Your task to perform on an android device: Play the last video I watched on Youtube Image 0: 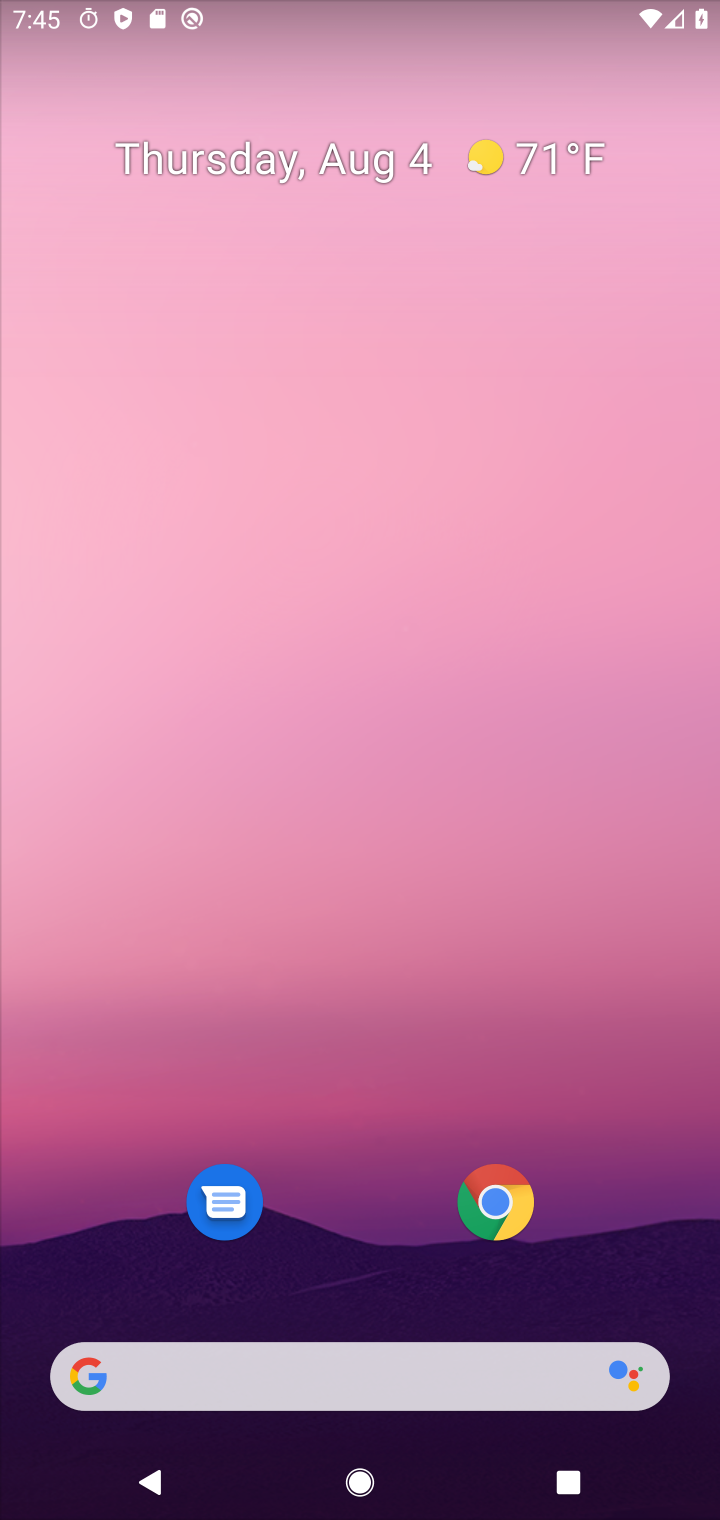
Step 0: drag from (403, 1025) to (578, 197)
Your task to perform on an android device: Play the last video I watched on Youtube Image 1: 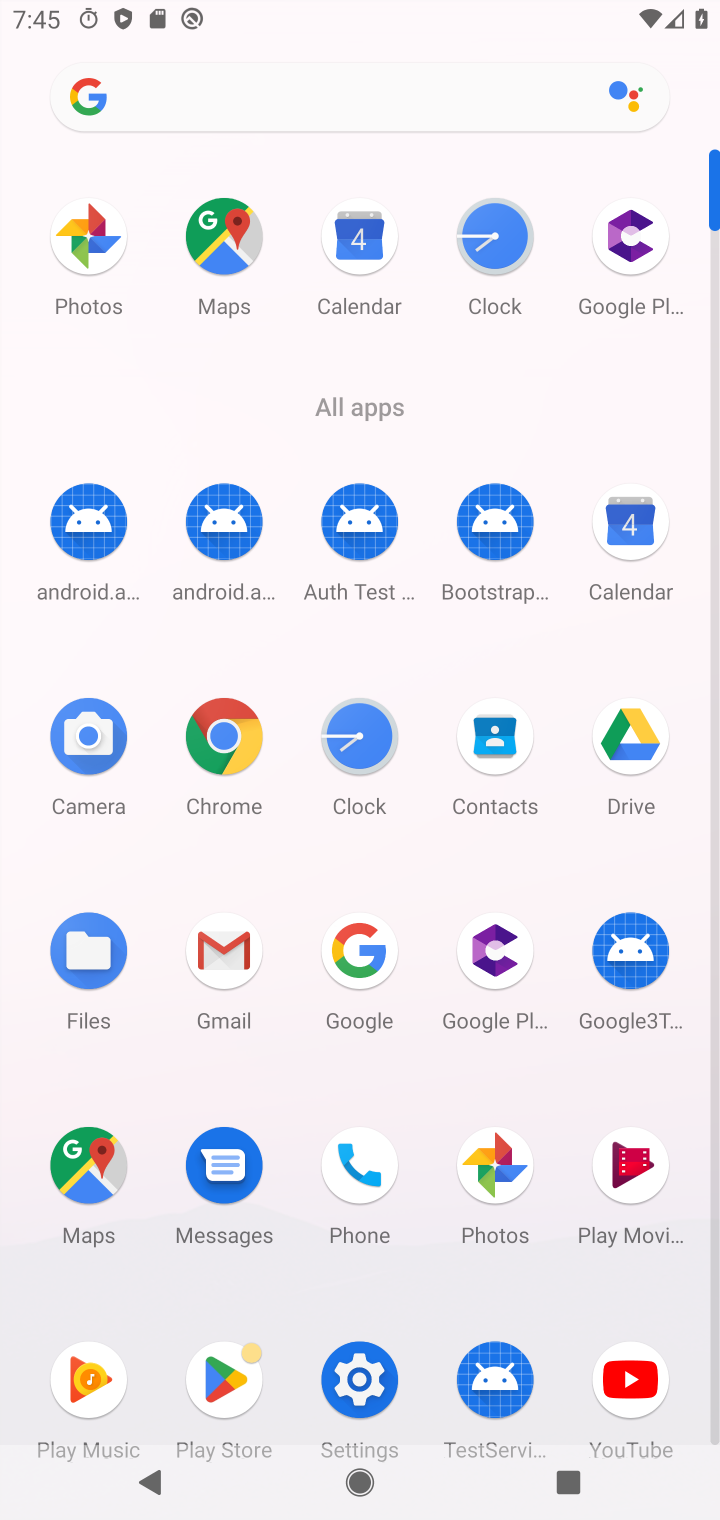
Step 1: click (646, 1402)
Your task to perform on an android device: Play the last video I watched on Youtube Image 2: 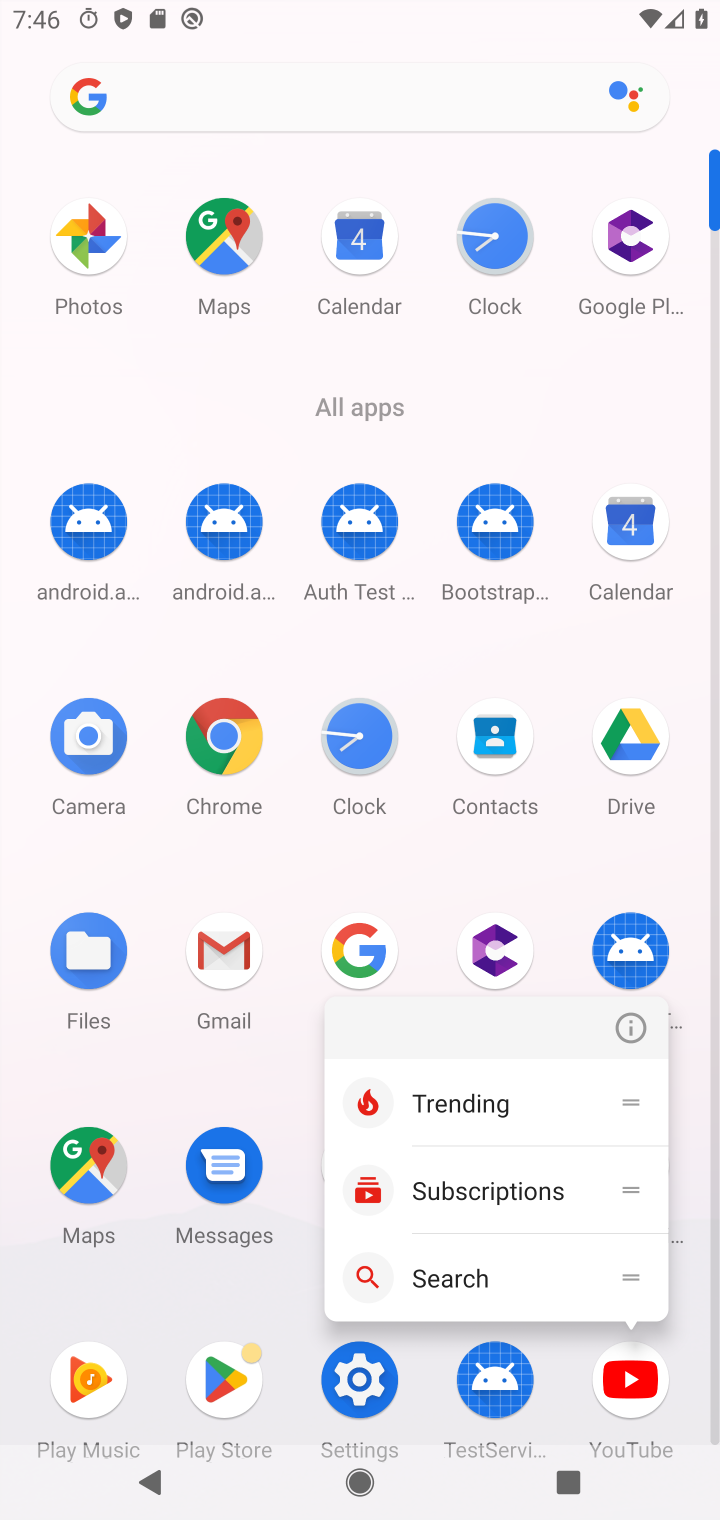
Step 2: click (620, 1017)
Your task to perform on an android device: Play the last video I watched on Youtube Image 3: 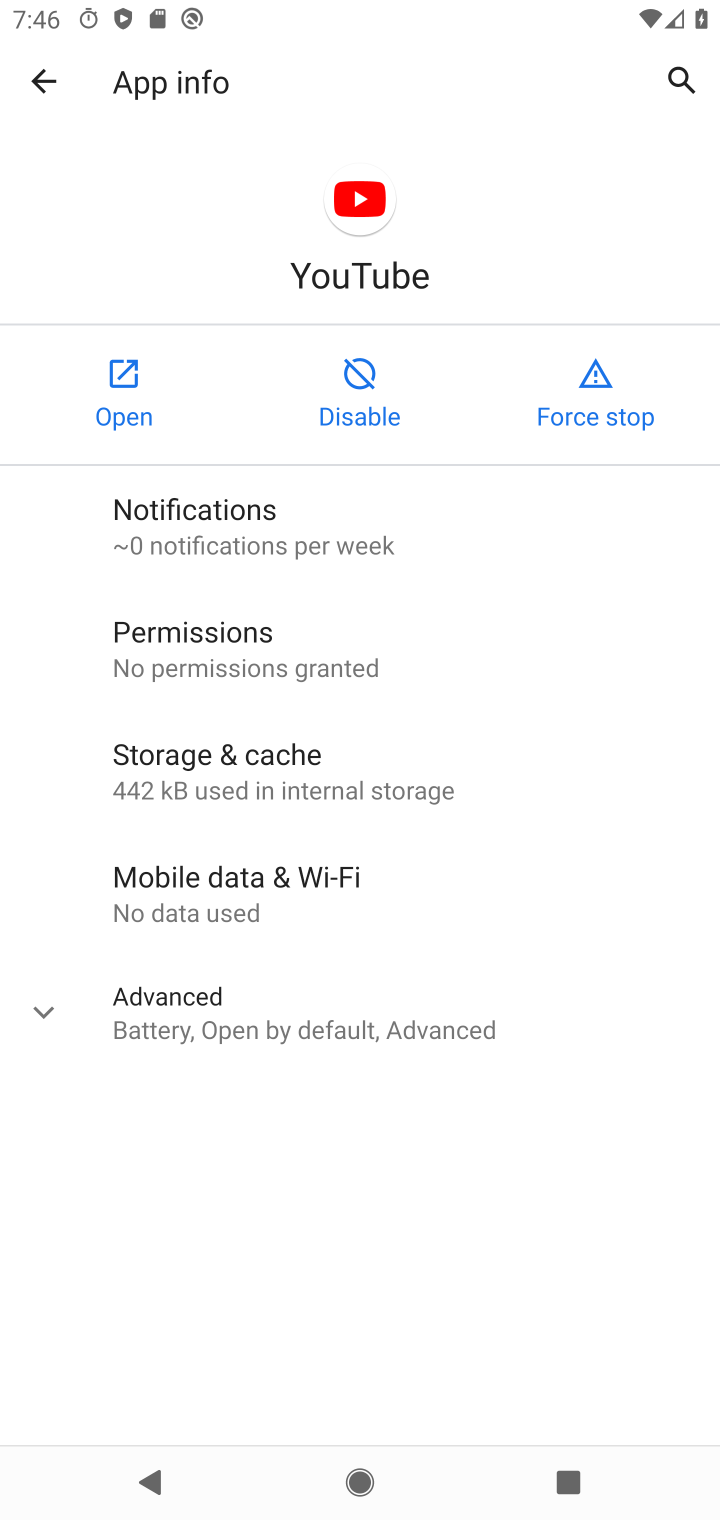
Step 3: click (102, 390)
Your task to perform on an android device: Play the last video I watched on Youtube Image 4: 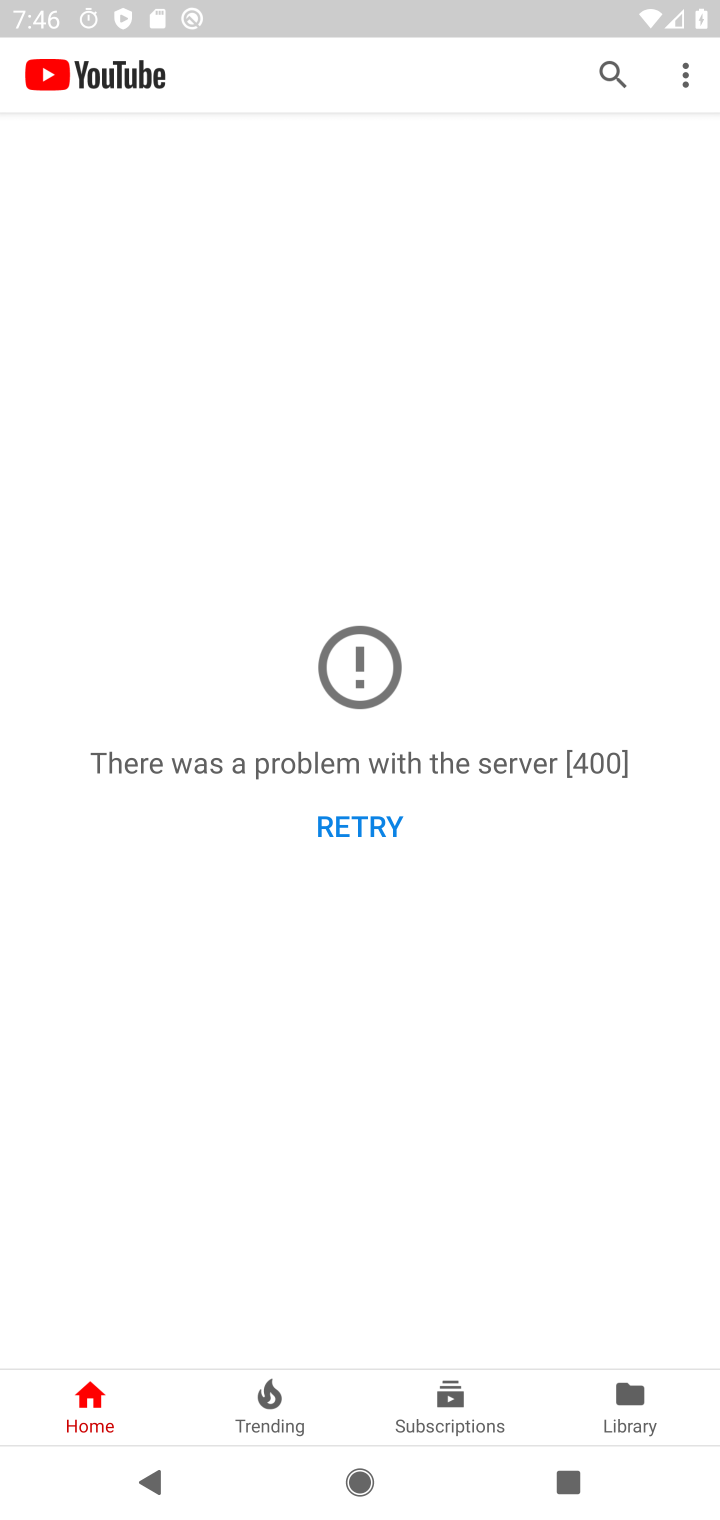
Step 4: drag from (399, 1234) to (314, 780)
Your task to perform on an android device: Play the last video I watched on Youtube Image 5: 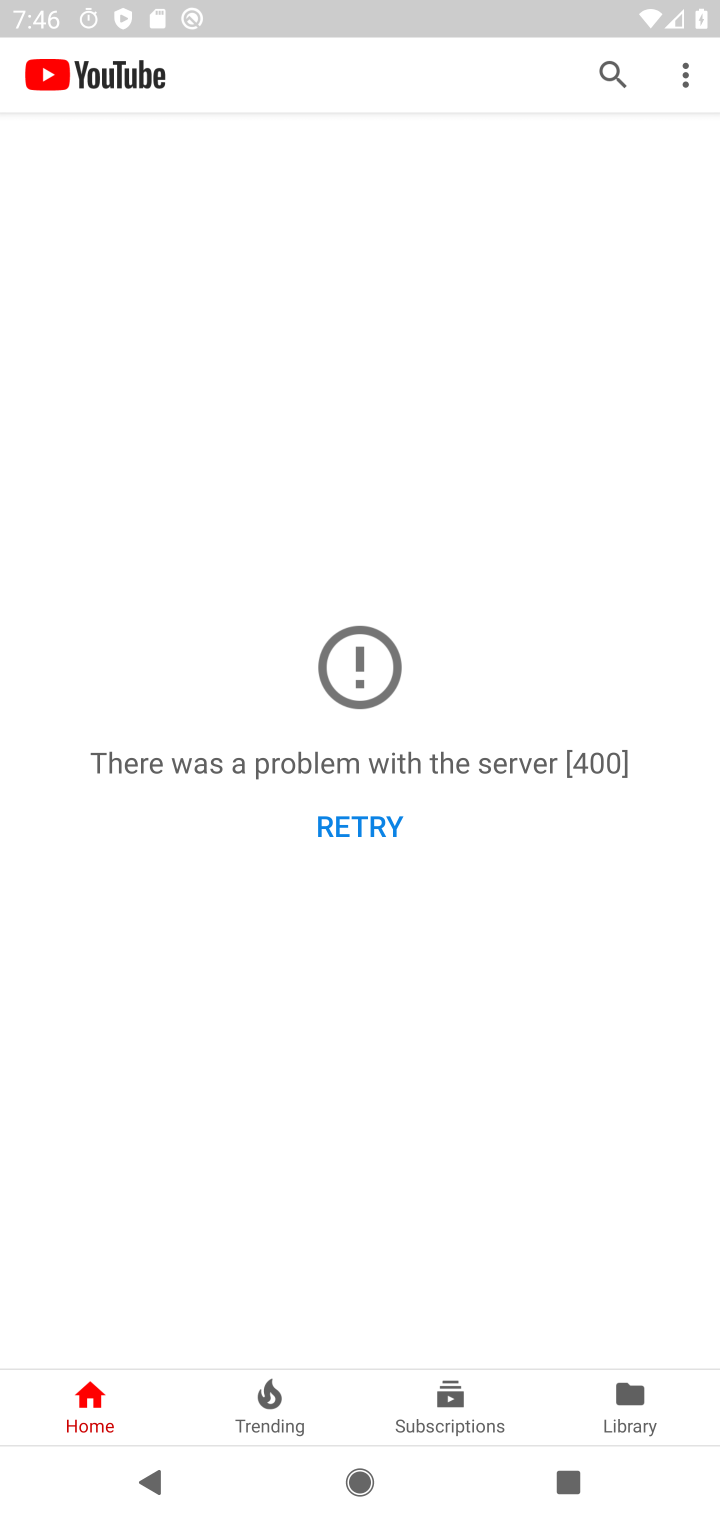
Step 5: click (613, 1399)
Your task to perform on an android device: Play the last video I watched on Youtube Image 6: 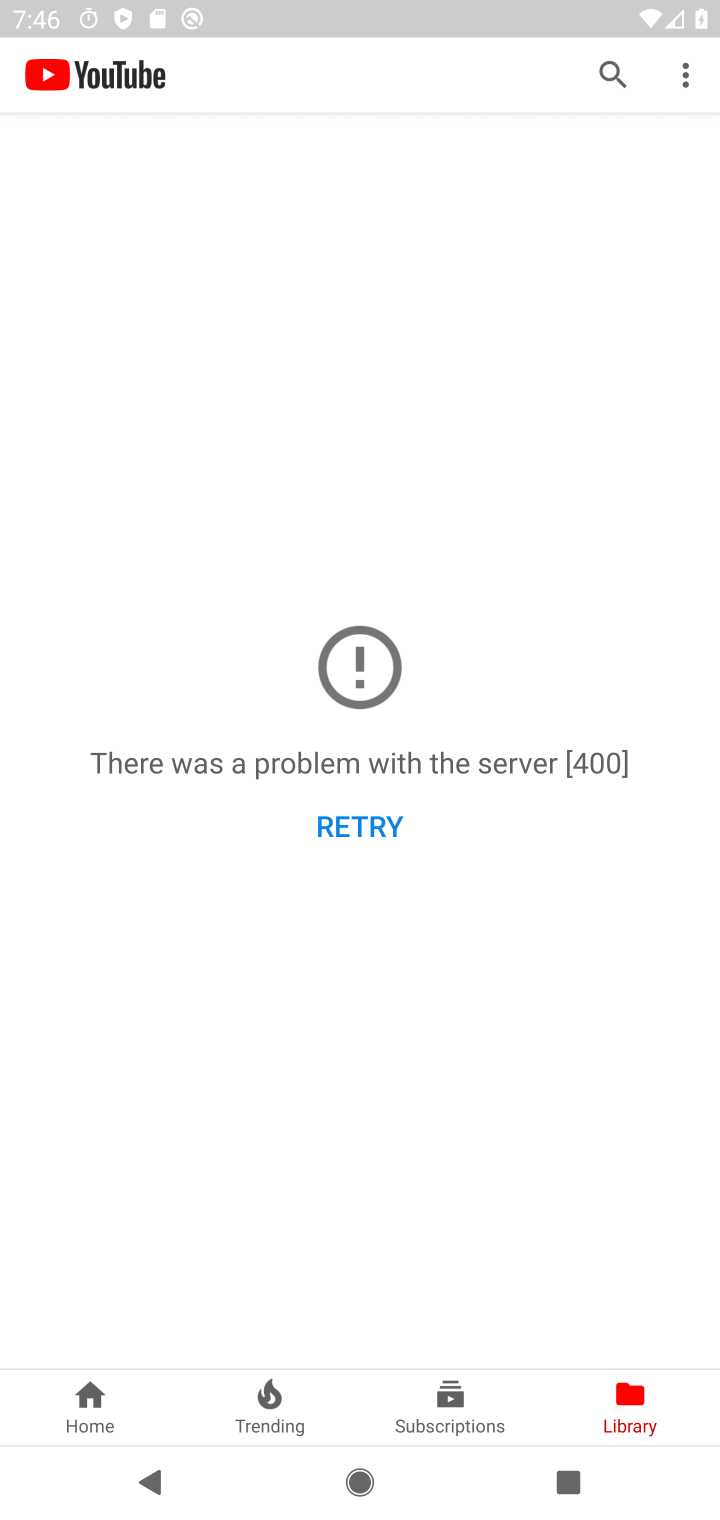
Step 6: click (326, 783)
Your task to perform on an android device: Play the last video I watched on Youtube Image 7: 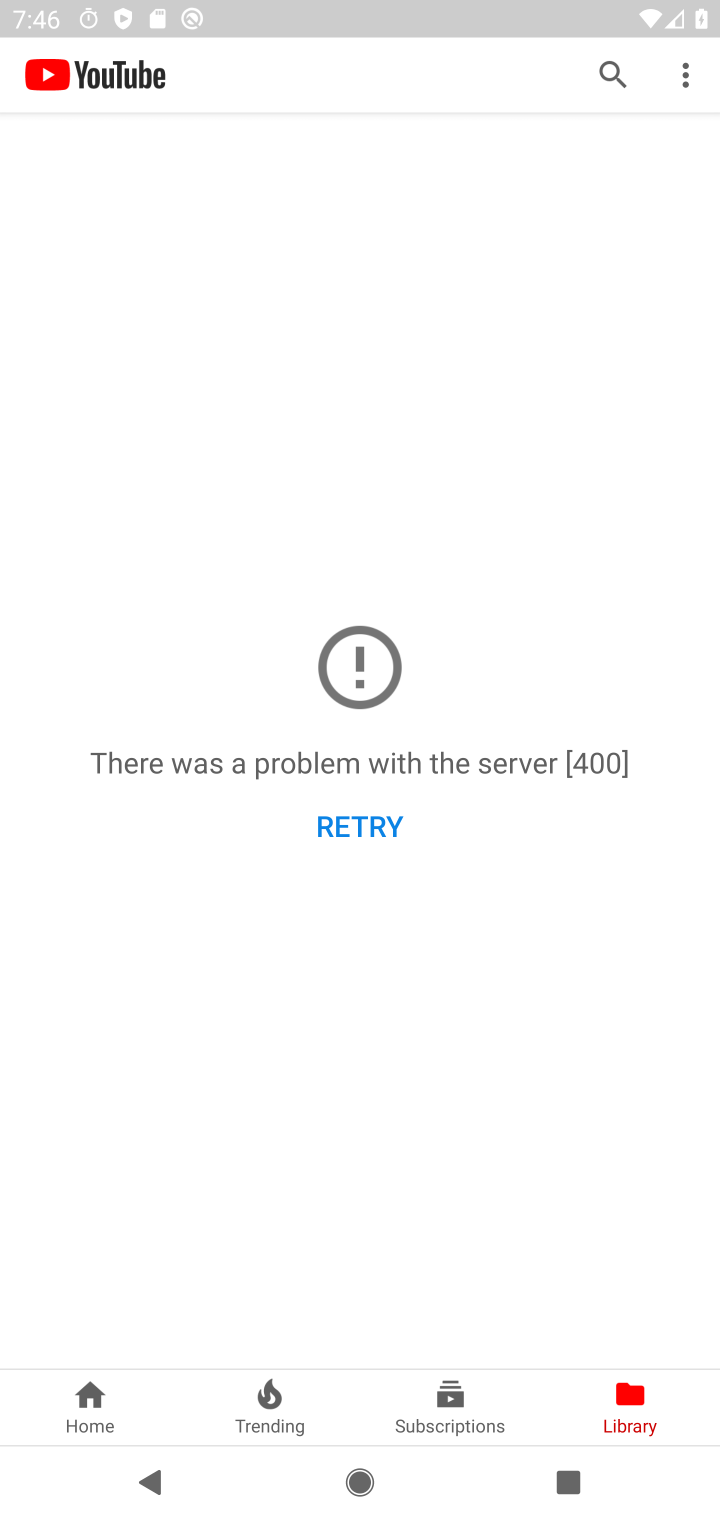
Step 7: task complete